Your task to perform on an android device: Toggle the flashlight Image 0: 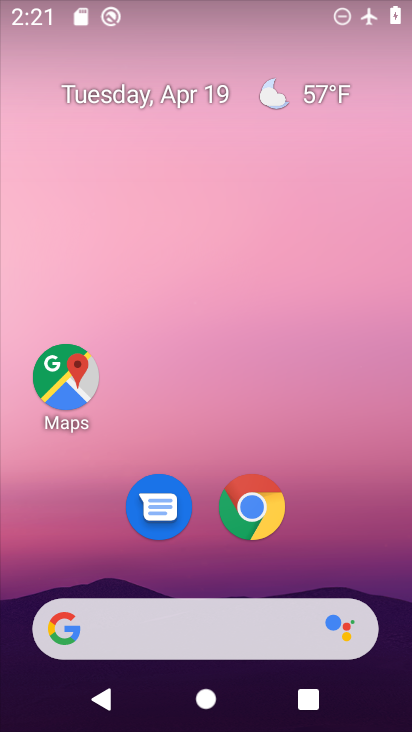
Step 0: drag from (384, 548) to (114, 175)
Your task to perform on an android device: Toggle the flashlight Image 1: 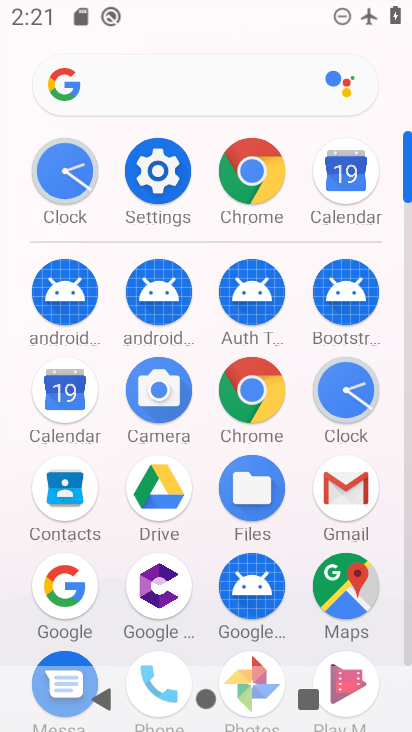
Step 1: click (155, 220)
Your task to perform on an android device: Toggle the flashlight Image 2: 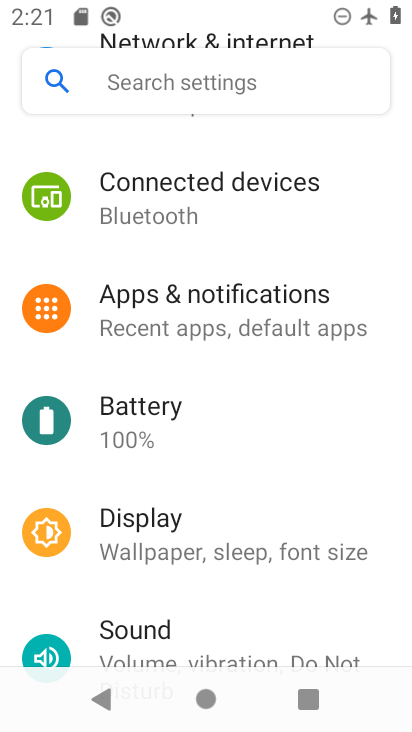
Step 2: task complete